Your task to perform on an android device: add a label to a message in the gmail app Image 0: 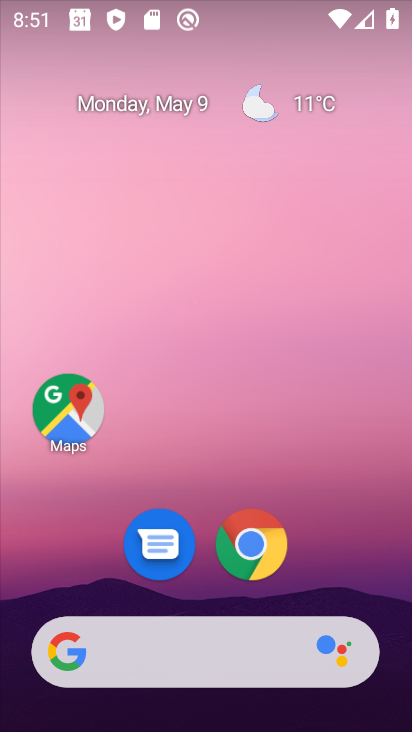
Step 0: drag from (407, 641) to (408, 297)
Your task to perform on an android device: add a label to a message in the gmail app Image 1: 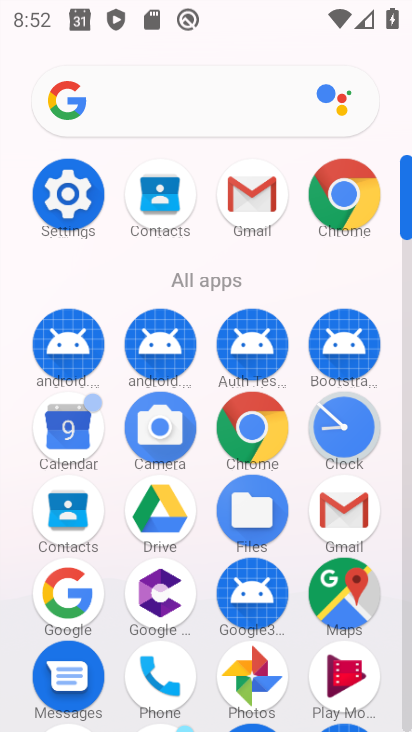
Step 1: click (257, 212)
Your task to perform on an android device: add a label to a message in the gmail app Image 2: 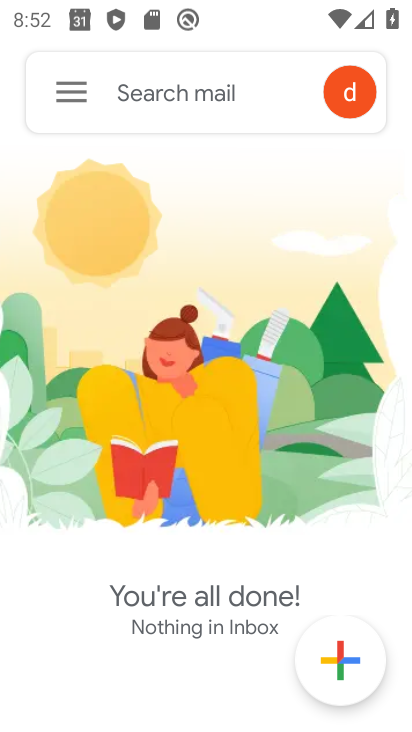
Step 2: click (67, 95)
Your task to perform on an android device: add a label to a message in the gmail app Image 3: 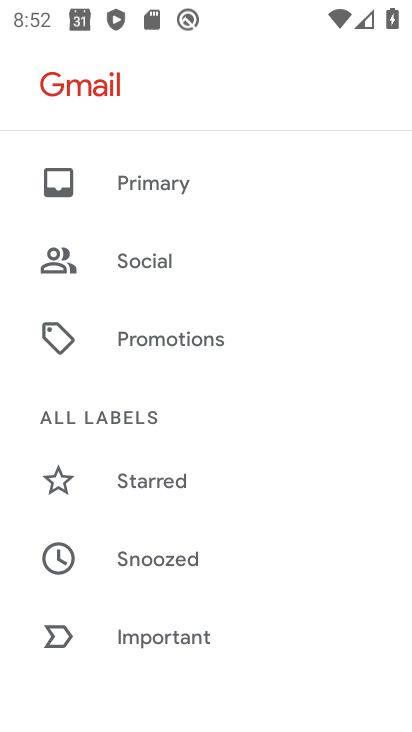
Step 3: click (119, 177)
Your task to perform on an android device: add a label to a message in the gmail app Image 4: 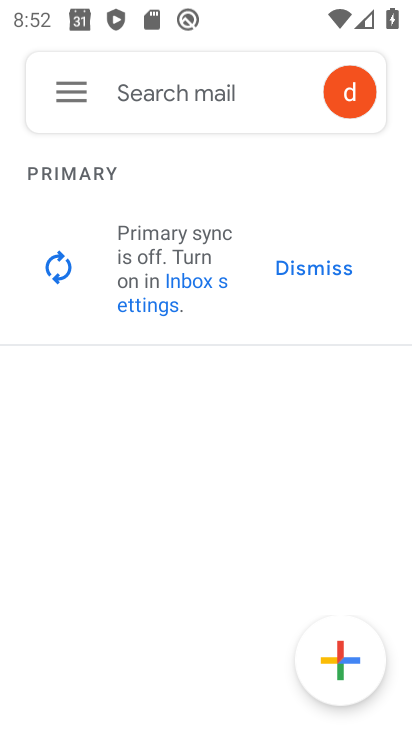
Step 4: click (74, 94)
Your task to perform on an android device: add a label to a message in the gmail app Image 5: 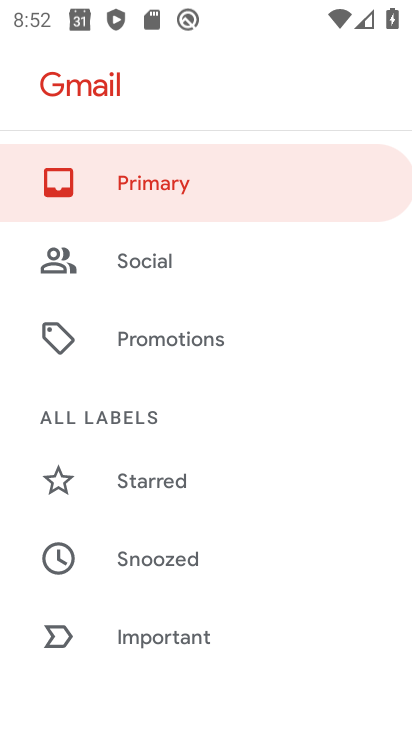
Step 5: click (125, 176)
Your task to perform on an android device: add a label to a message in the gmail app Image 6: 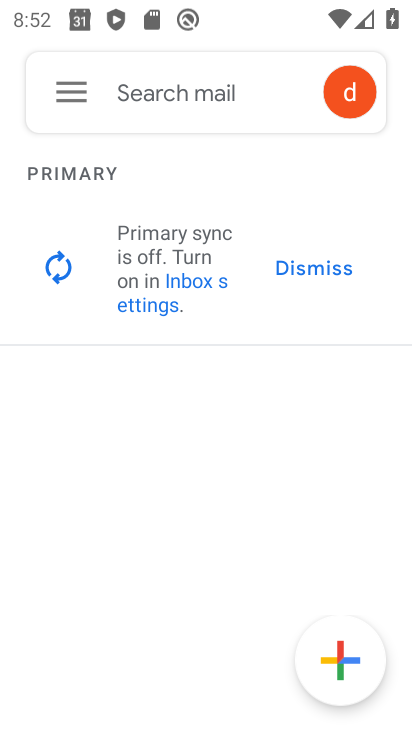
Step 6: task complete